Your task to perform on an android device: see sites visited before in the chrome app Image 0: 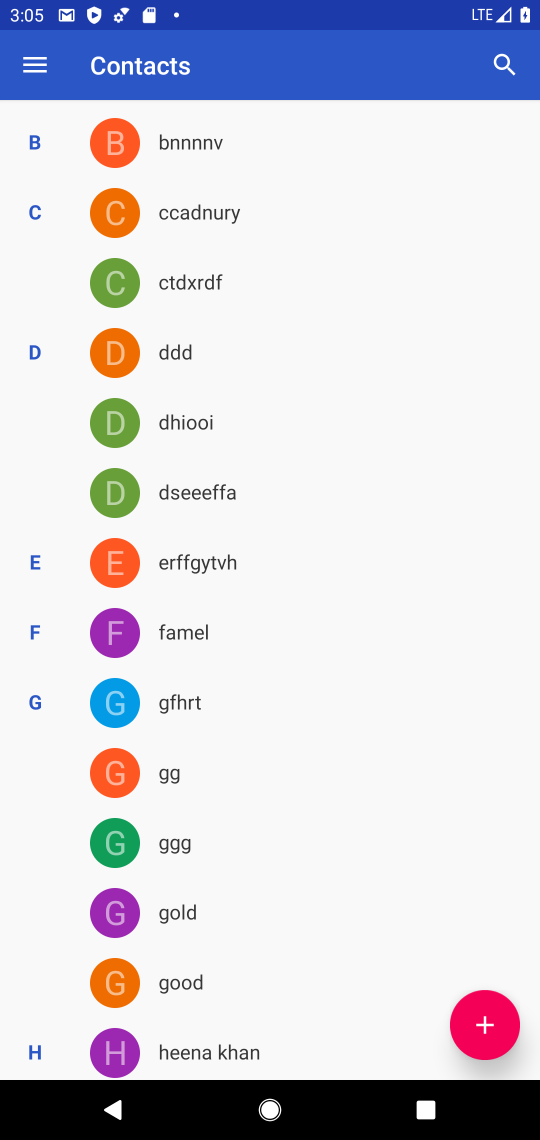
Step 0: press home button
Your task to perform on an android device: see sites visited before in the chrome app Image 1: 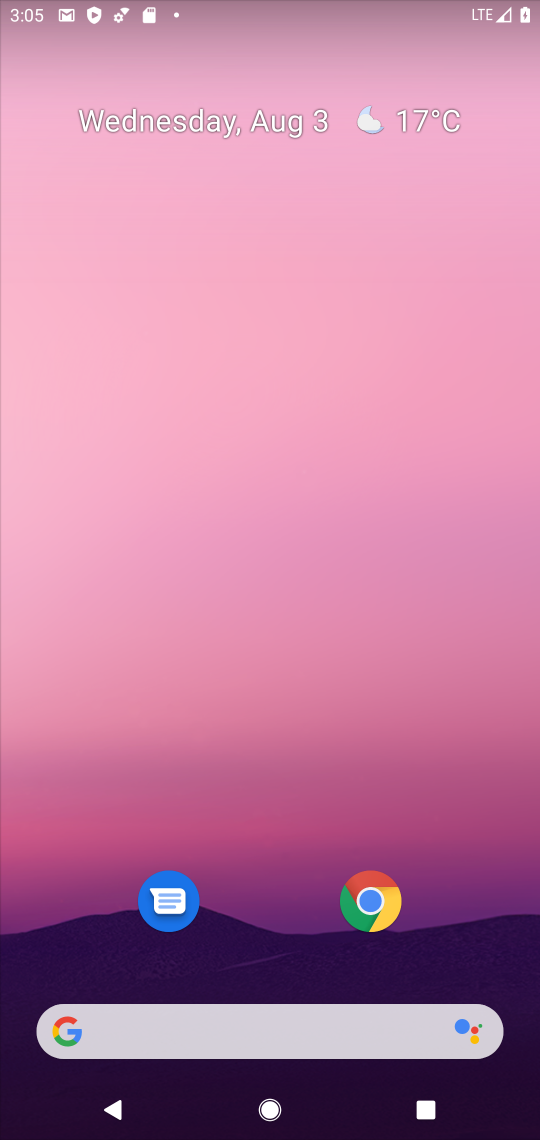
Step 1: click (353, 897)
Your task to perform on an android device: see sites visited before in the chrome app Image 2: 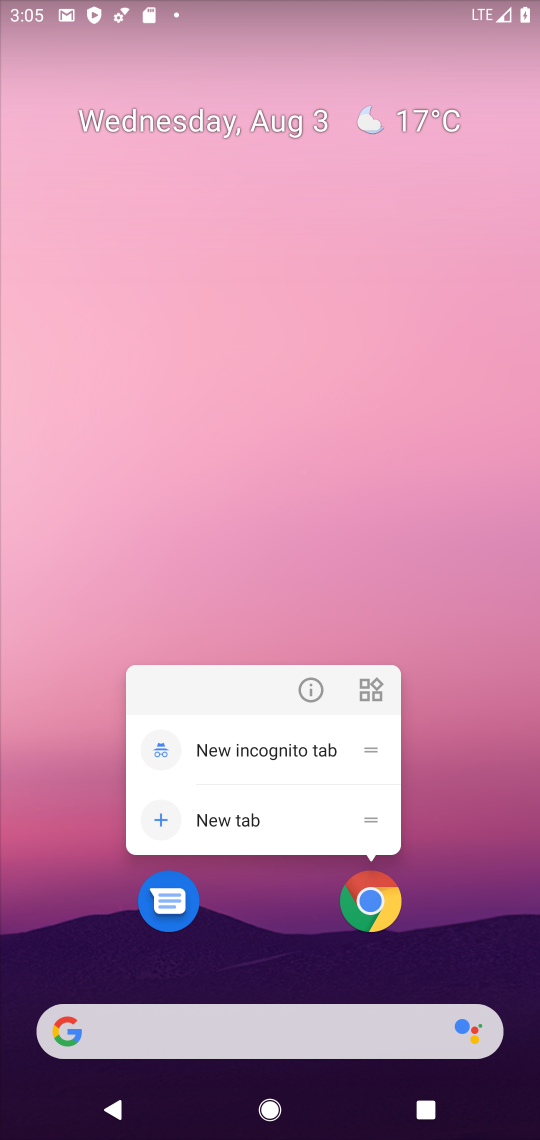
Step 2: click (392, 893)
Your task to perform on an android device: see sites visited before in the chrome app Image 3: 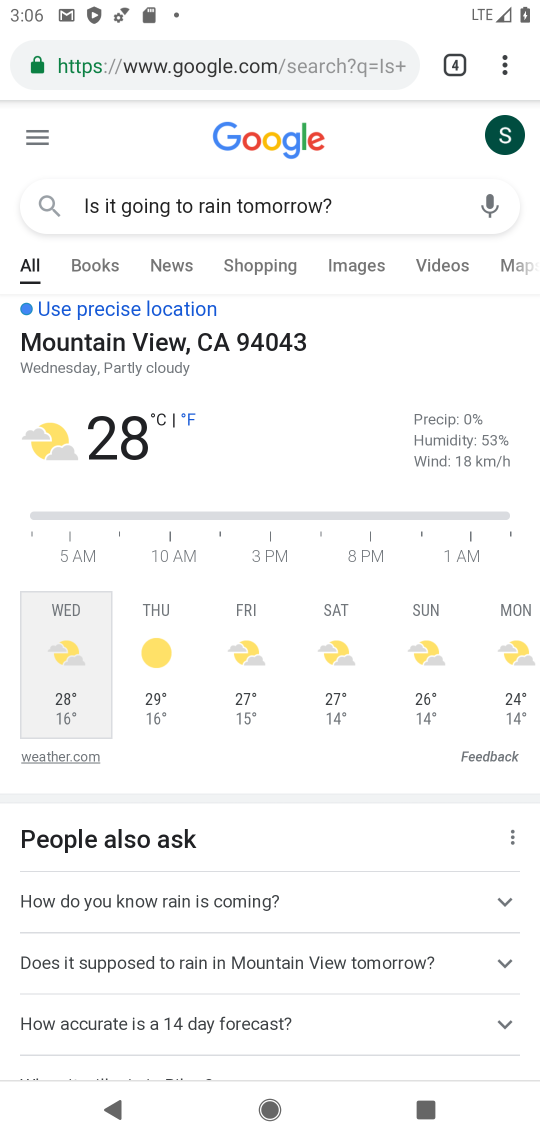
Step 3: click (500, 48)
Your task to perform on an android device: see sites visited before in the chrome app Image 4: 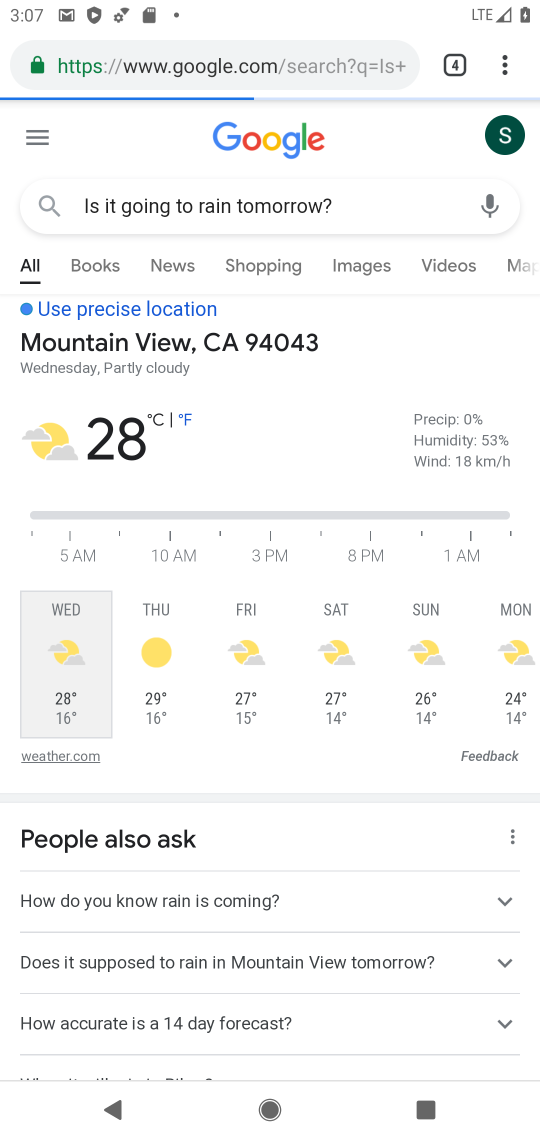
Step 4: click (509, 66)
Your task to perform on an android device: see sites visited before in the chrome app Image 5: 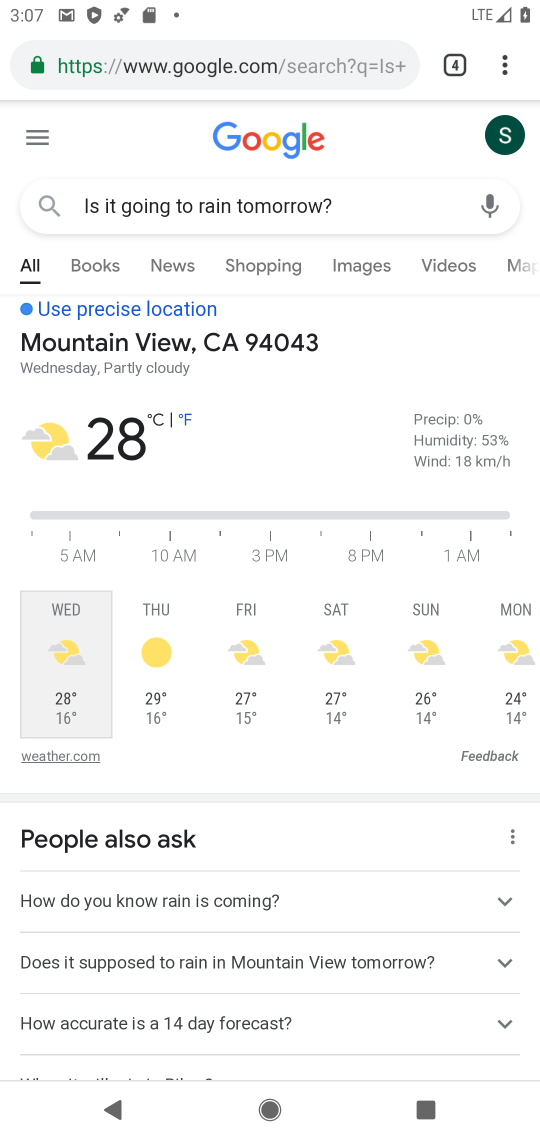
Step 5: click (500, 63)
Your task to perform on an android device: see sites visited before in the chrome app Image 6: 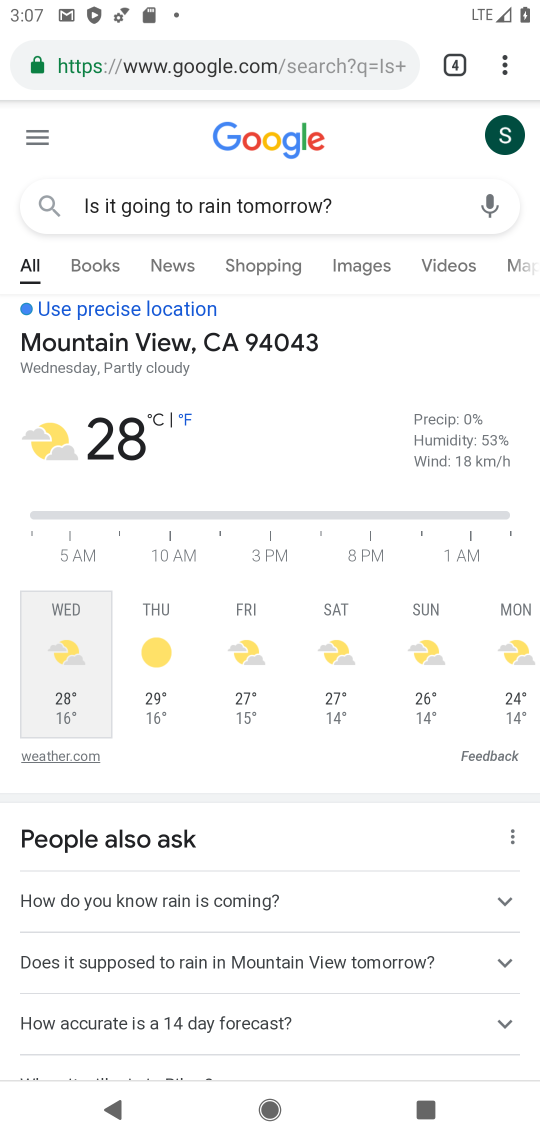
Step 6: click (500, 63)
Your task to perform on an android device: see sites visited before in the chrome app Image 7: 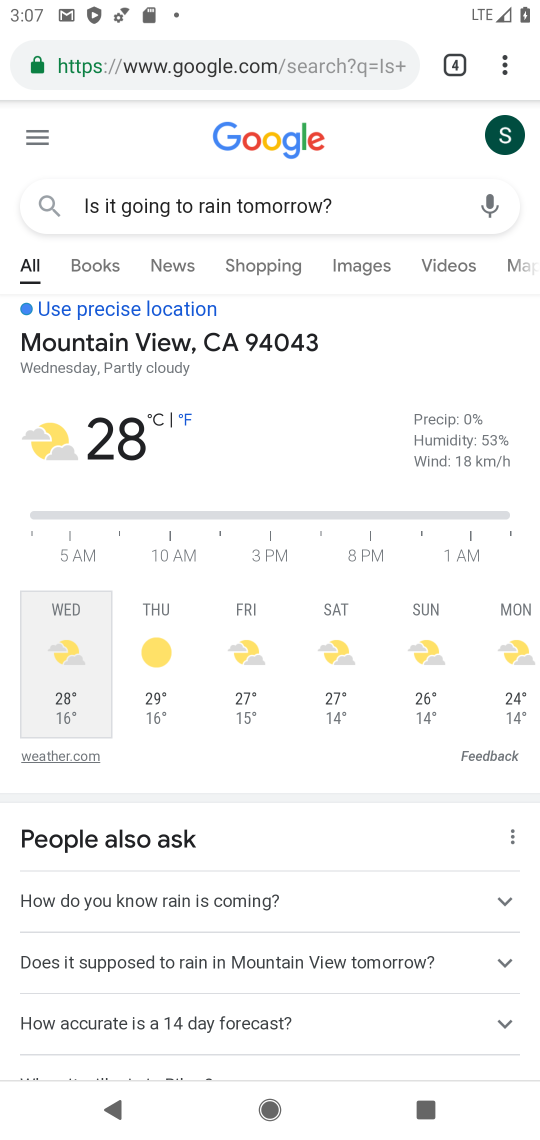
Step 7: click (509, 70)
Your task to perform on an android device: see sites visited before in the chrome app Image 8: 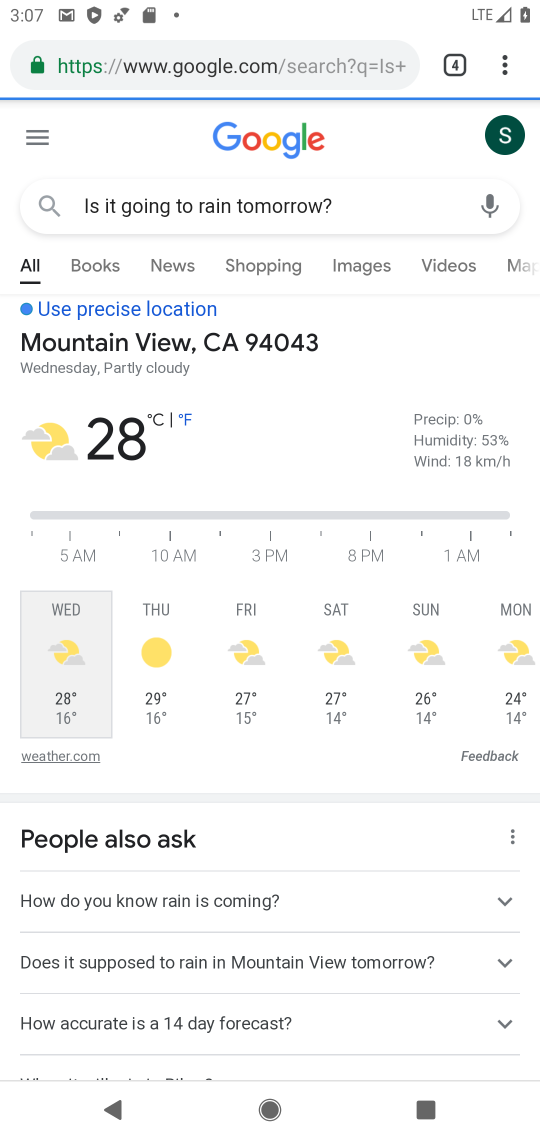
Step 8: click (509, 70)
Your task to perform on an android device: see sites visited before in the chrome app Image 9: 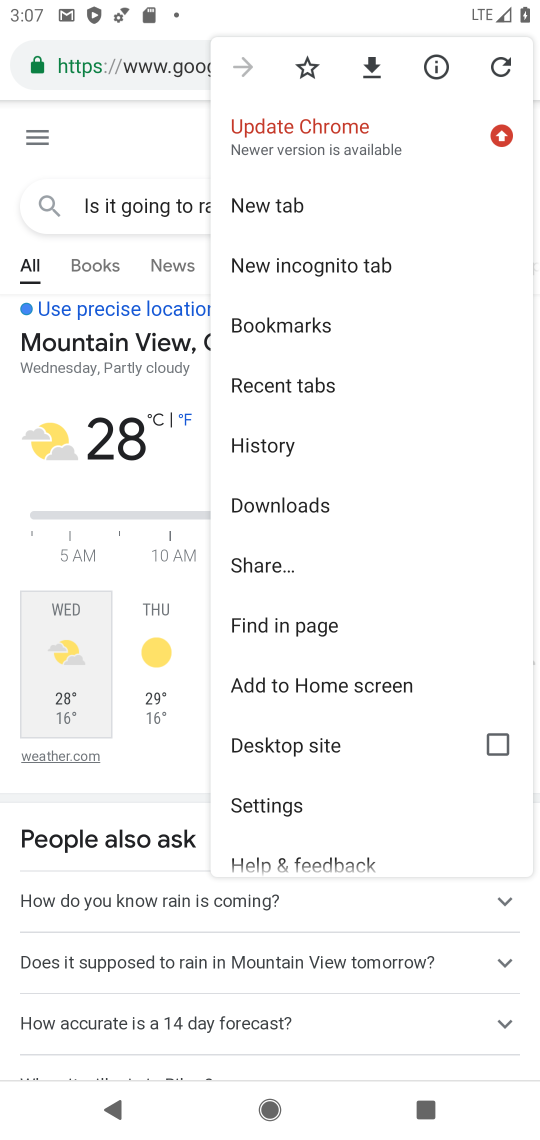
Step 9: click (271, 419)
Your task to perform on an android device: see sites visited before in the chrome app Image 10: 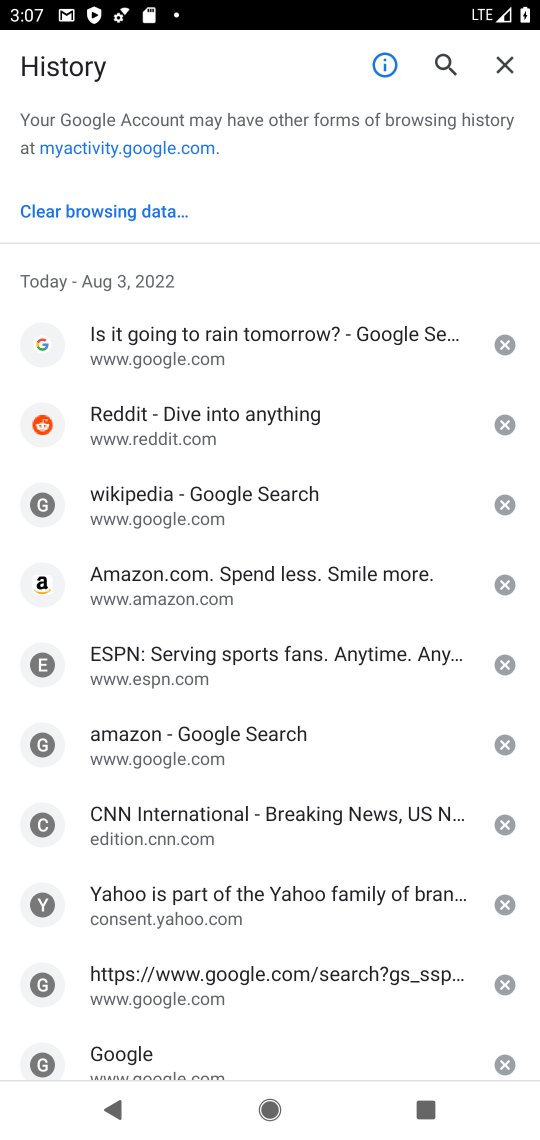
Step 10: task complete